Your task to perform on an android device: change the upload size in google photos Image 0: 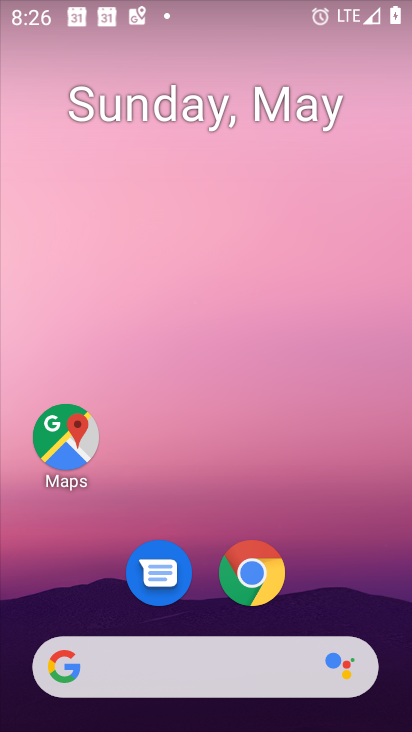
Step 0: drag from (209, 494) to (191, 1)
Your task to perform on an android device: change the upload size in google photos Image 1: 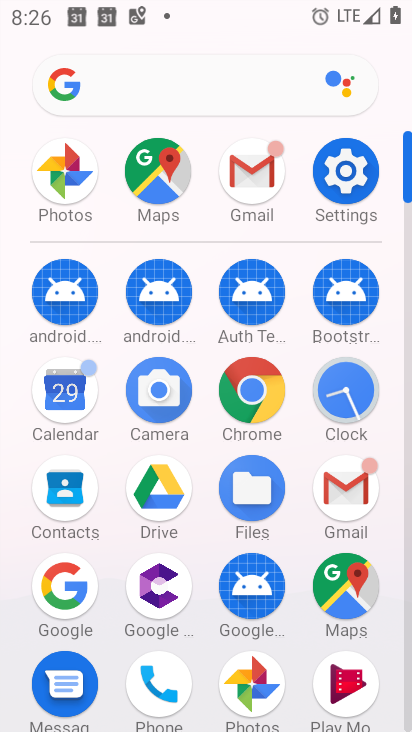
Step 1: click (71, 176)
Your task to perform on an android device: change the upload size in google photos Image 2: 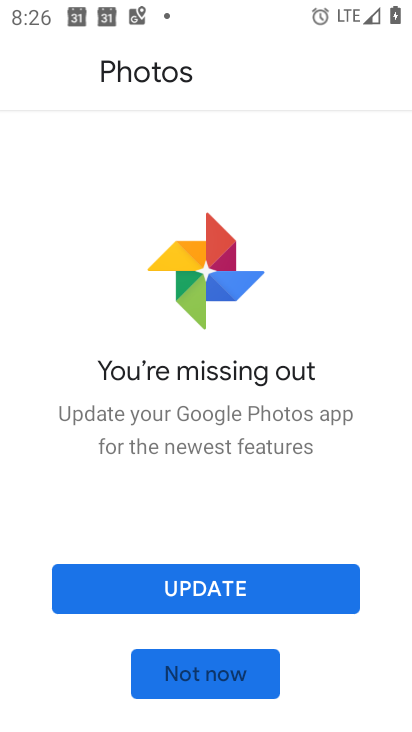
Step 2: click (234, 690)
Your task to perform on an android device: change the upload size in google photos Image 3: 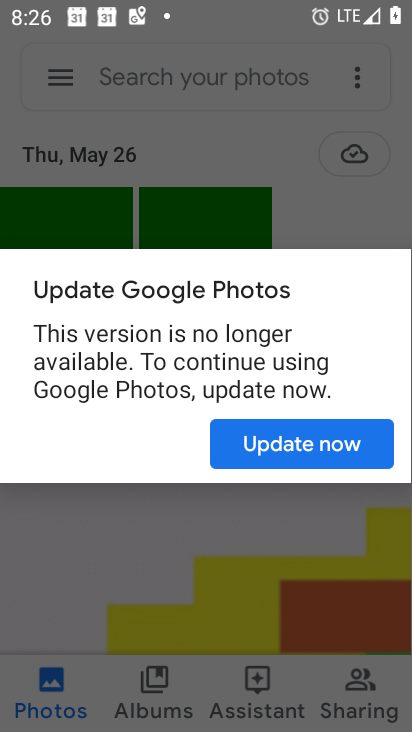
Step 3: click (322, 438)
Your task to perform on an android device: change the upload size in google photos Image 4: 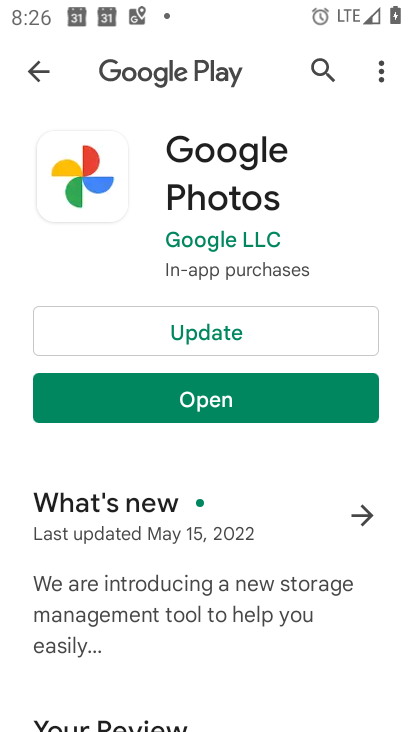
Step 4: click (299, 395)
Your task to perform on an android device: change the upload size in google photos Image 5: 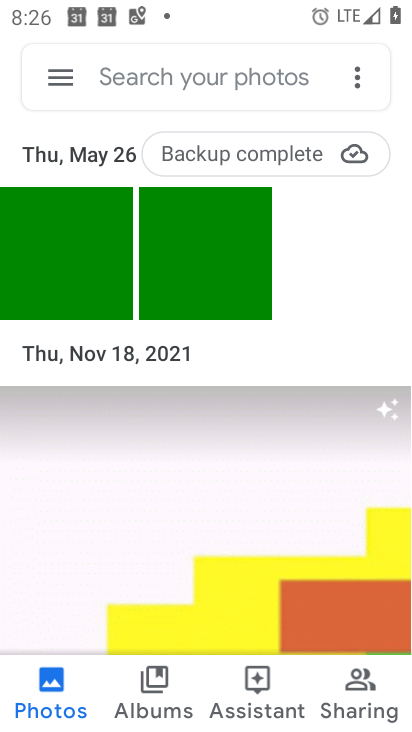
Step 5: click (56, 68)
Your task to perform on an android device: change the upload size in google photos Image 6: 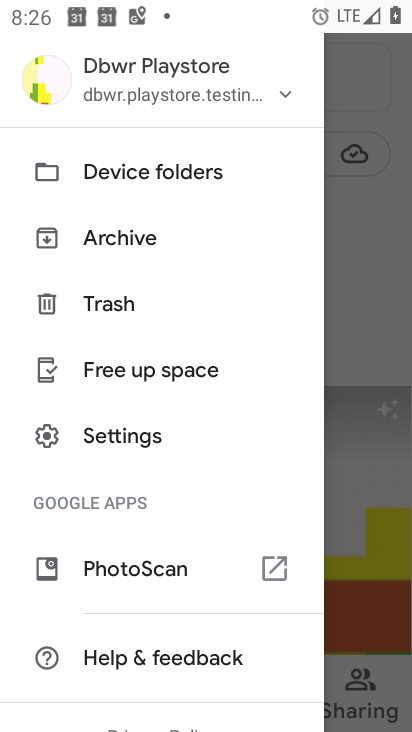
Step 6: click (111, 434)
Your task to perform on an android device: change the upload size in google photos Image 7: 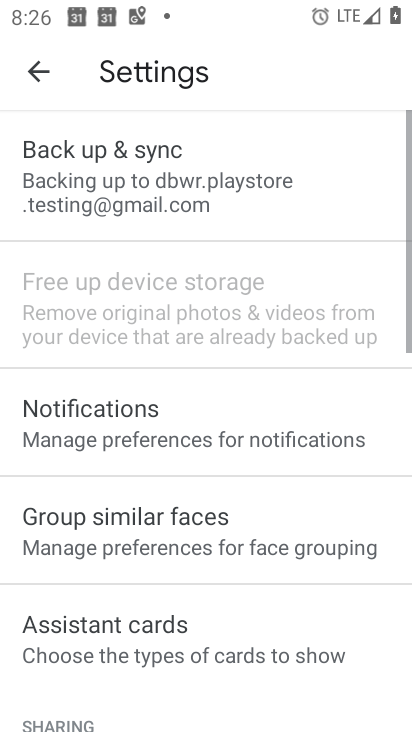
Step 7: click (178, 174)
Your task to perform on an android device: change the upload size in google photos Image 8: 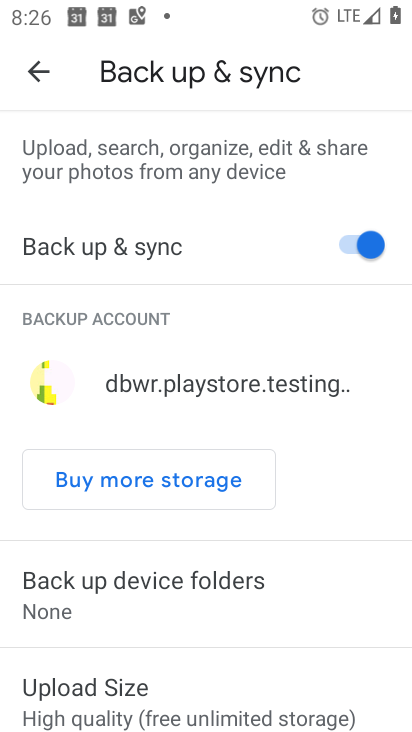
Step 8: drag from (231, 616) to (209, 350)
Your task to perform on an android device: change the upload size in google photos Image 9: 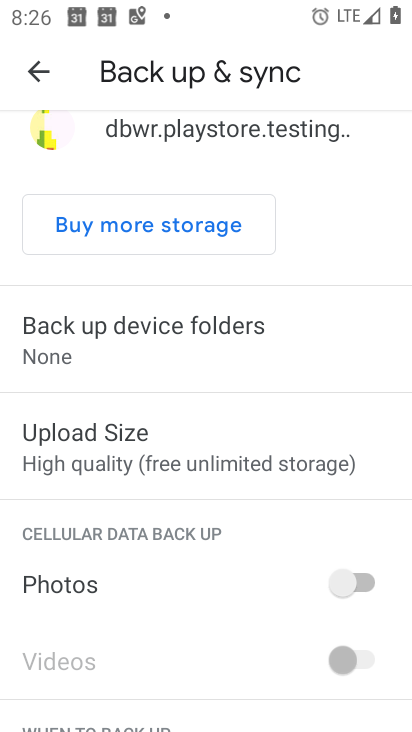
Step 9: click (202, 438)
Your task to perform on an android device: change the upload size in google photos Image 10: 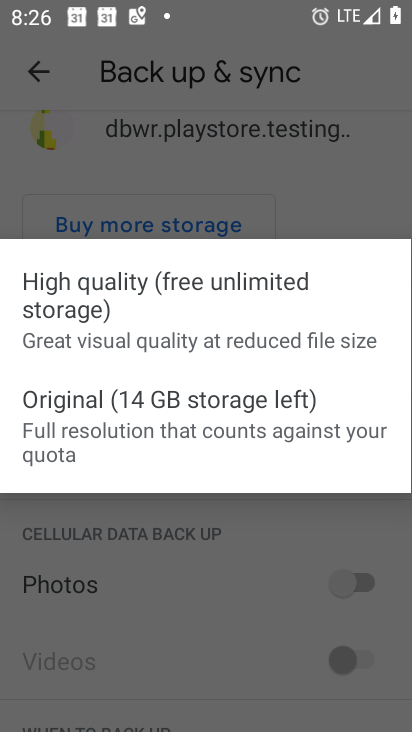
Step 10: click (203, 420)
Your task to perform on an android device: change the upload size in google photos Image 11: 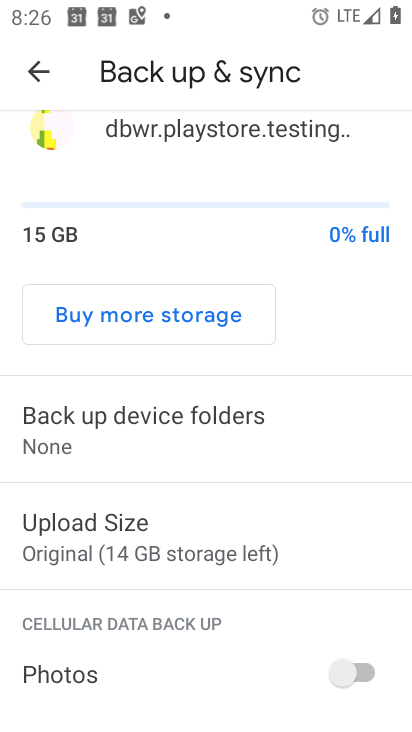
Step 11: task complete